Your task to perform on an android device: visit the assistant section in the google photos Image 0: 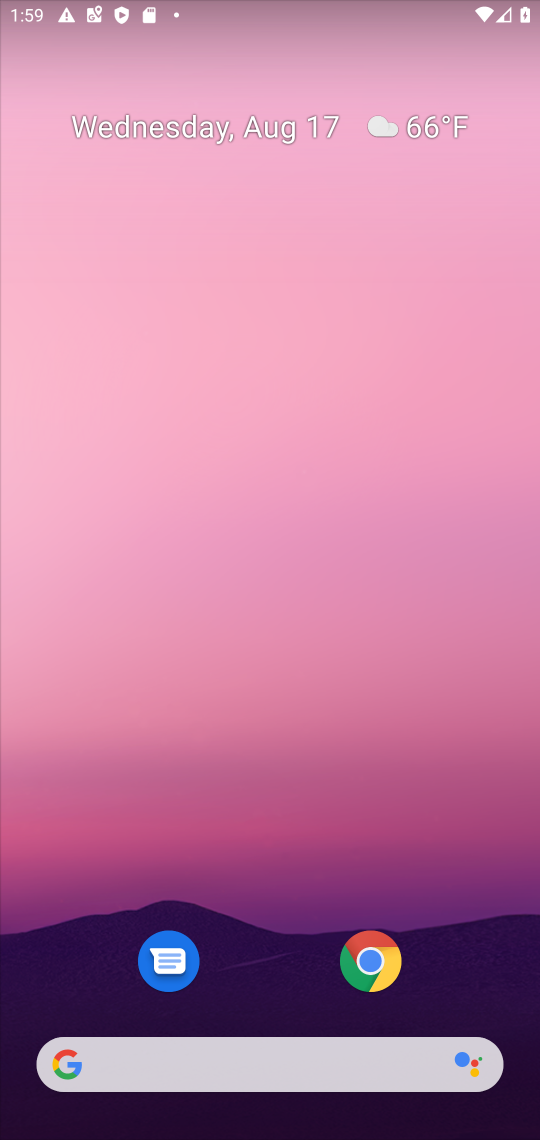
Step 0: drag from (281, 1016) to (247, 22)
Your task to perform on an android device: visit the assistant section in the google photos Image 1: 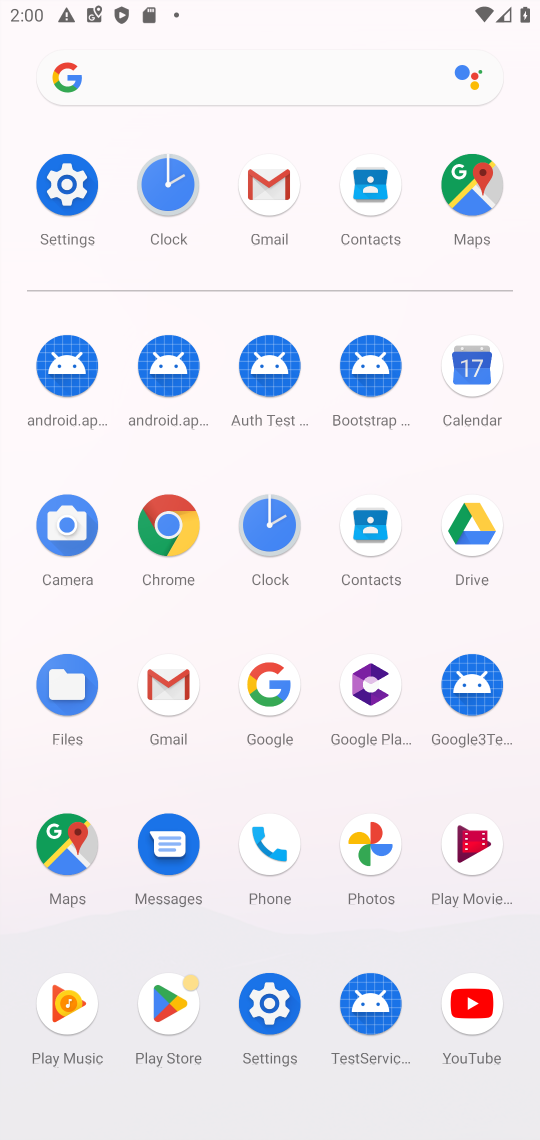
Step 1: click (369, 852)
Your task to perform on an android device: visit the assistant section in the google photos Image 2: 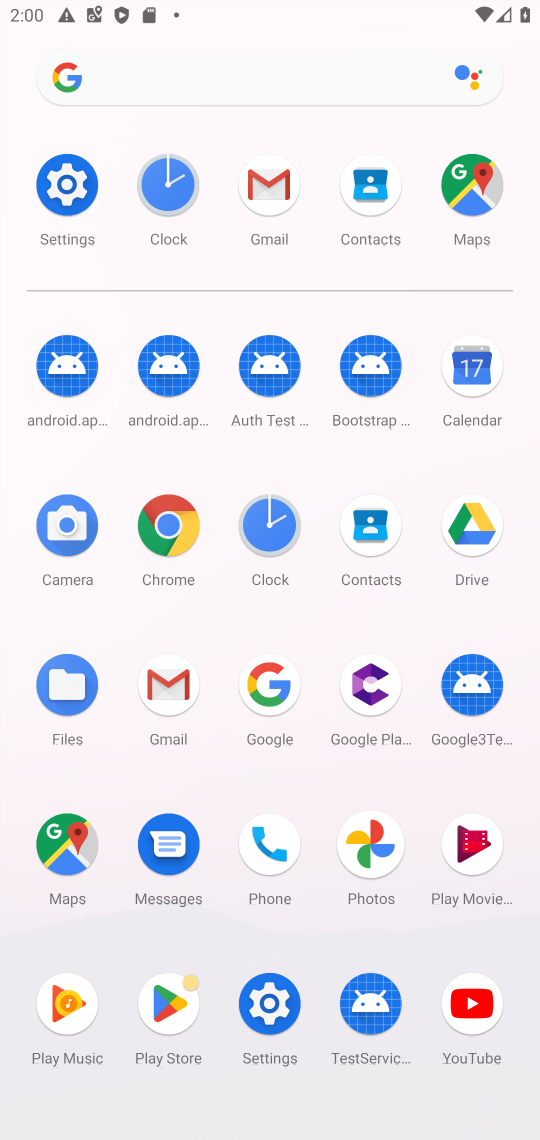
Step 2: click (369, 852)
Your task to perform on an android device: visit the assistant section in the google photos Image 3: 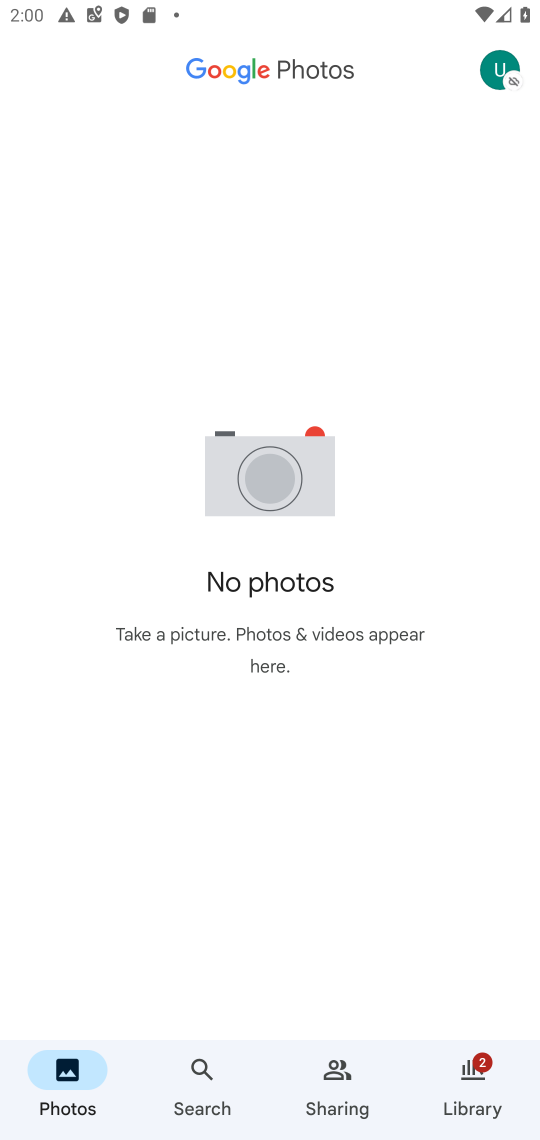
Step 3: click (492, 74)
Your task to perform on an android device: visit the assistant section in the google photos Image 4: 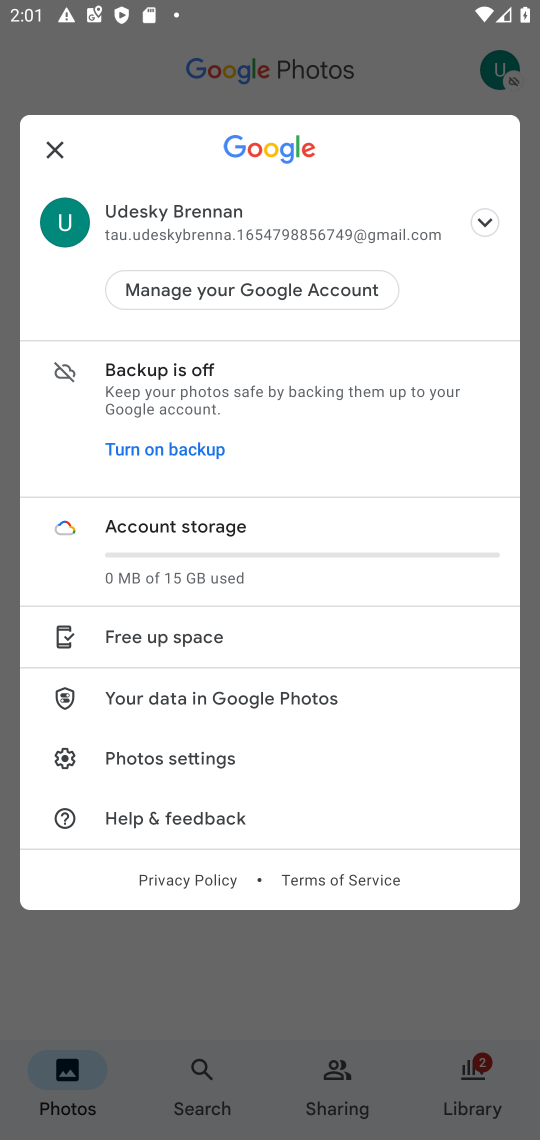
Step 4: task complete